Your task to perform on an android device: find snoozed emails in the gmail app Image 0: 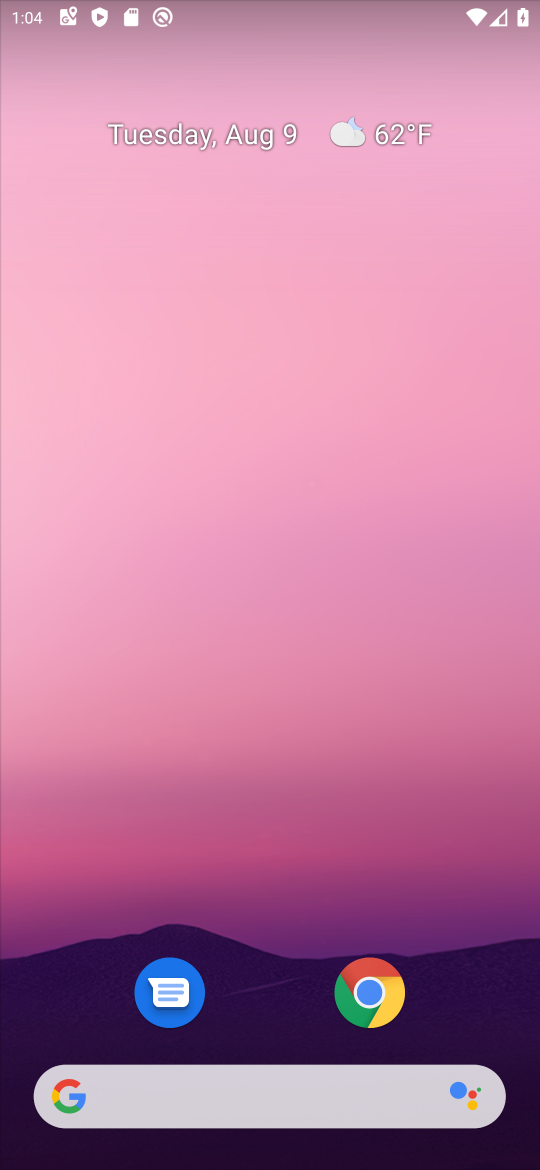
Step 0: drag from (287, 955) to (490, 139)
Your task to perform on an android device: find snoozed emails in the gmail app Image 1: 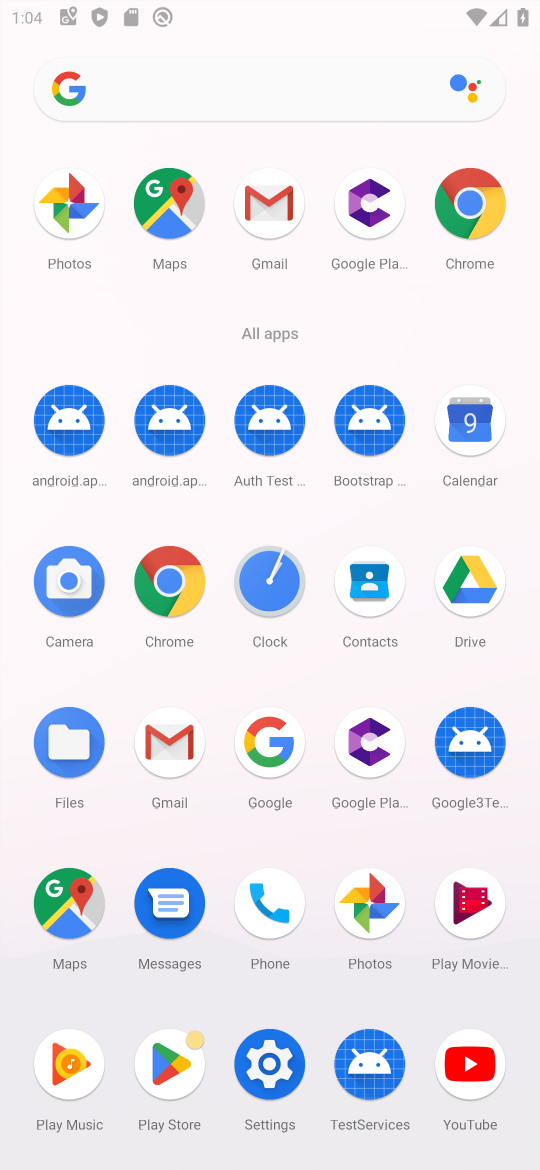
Step 1: drag from (295, 697) to (313, 303)
Your task to perform on an android device: find snoozed emails in the gmail app Image 2: 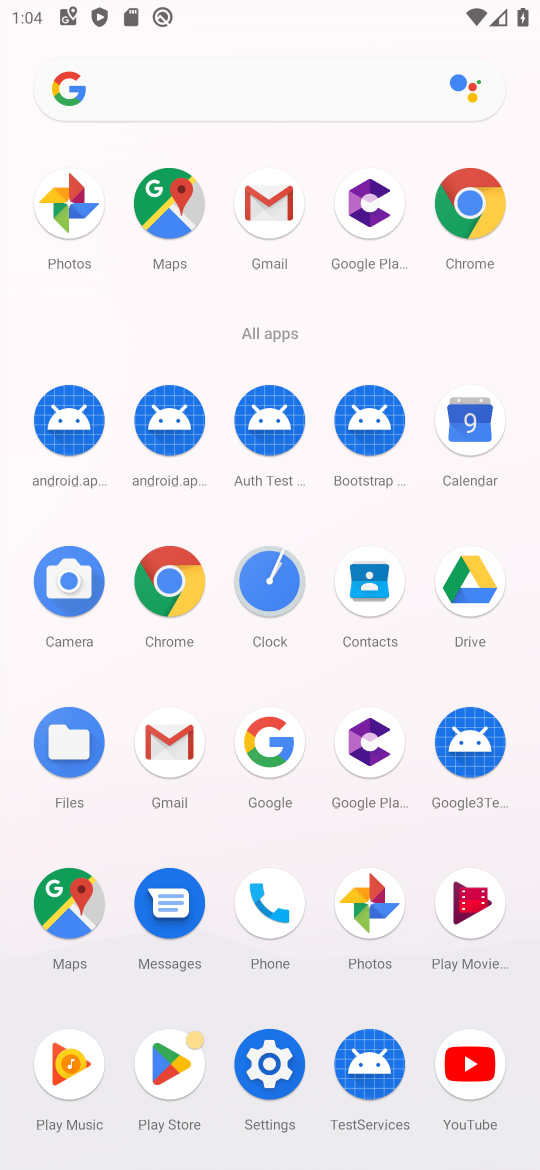
Step 2: click (187, 750)
Your task to perform on an android device: find snoozed emails in the gmail app Image 3: 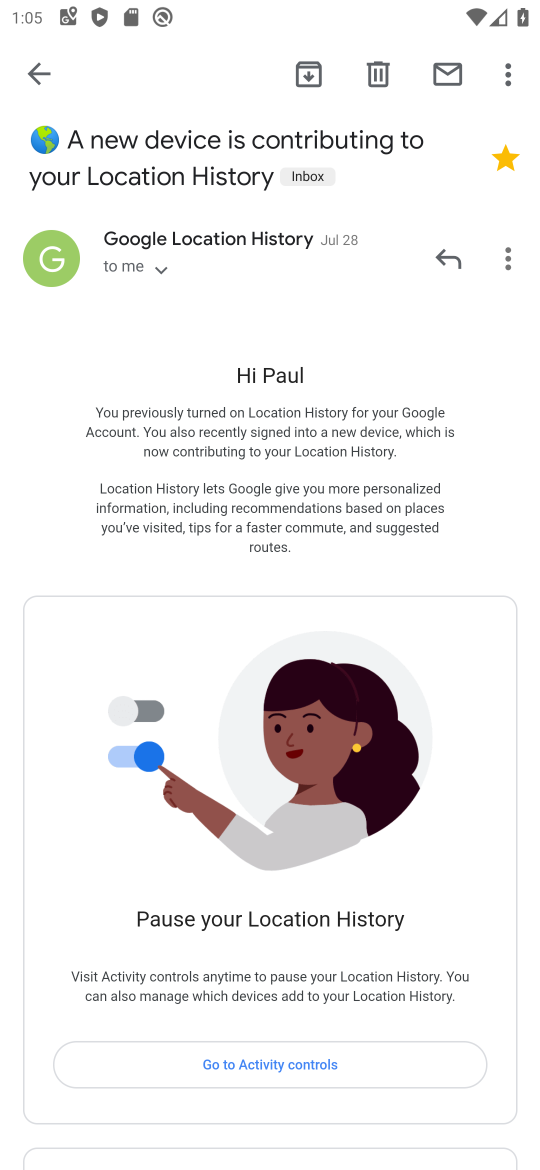
Step 3: click (53, 60)
Your task to perform on an android device: find snoozed emails in the gmail app Image 4: 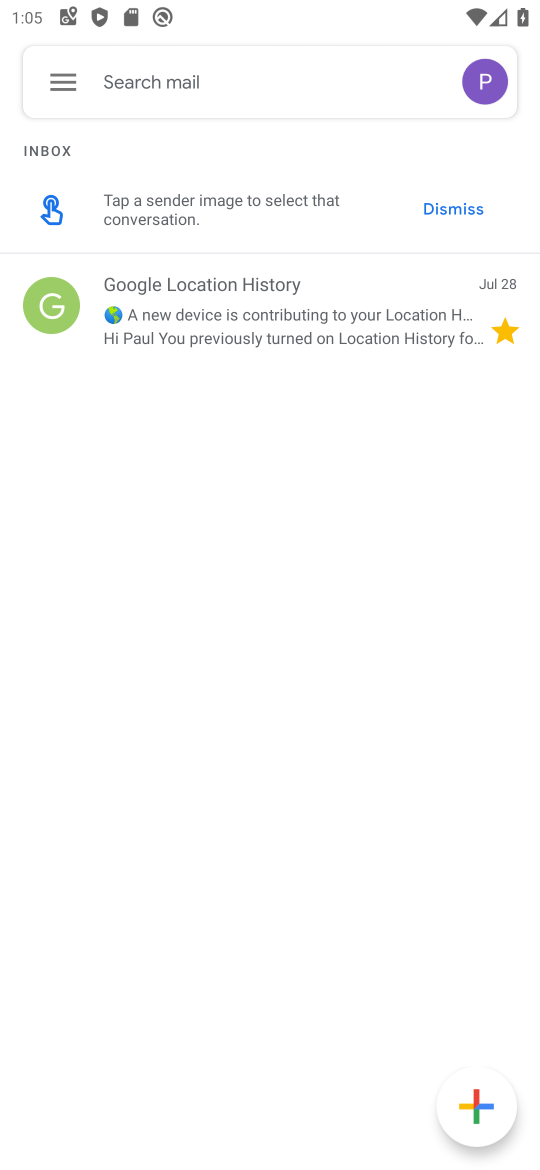
Step 4: click (49, 96)
Your task to perform on an android device: find snoozed emails in the gmail app Image 5: 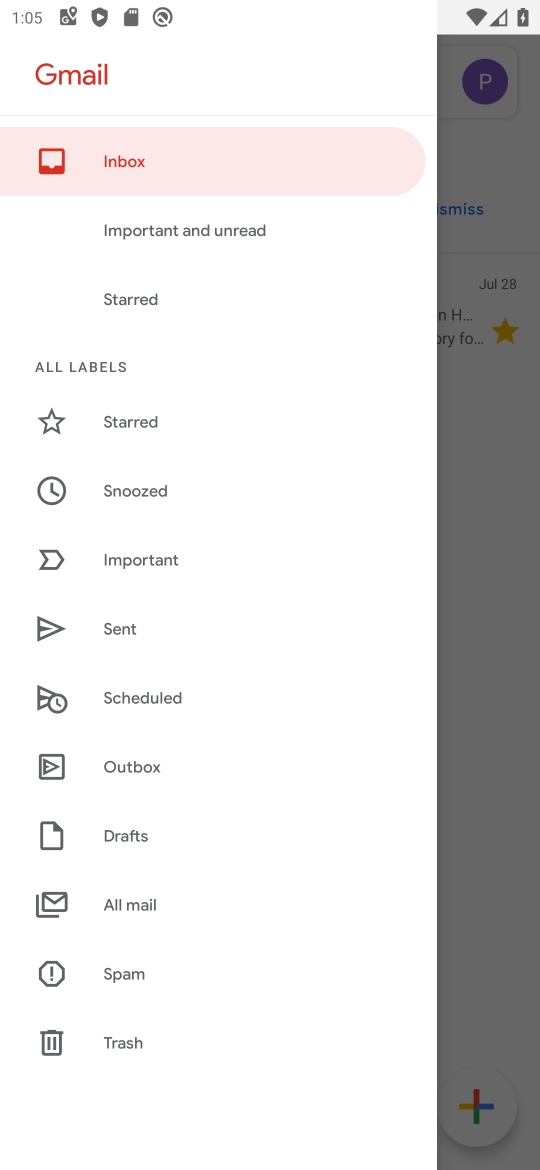
Step 5: click (134, 484)
Your task to perform on an android device: find snoozed emails in the gmail app Image 6: 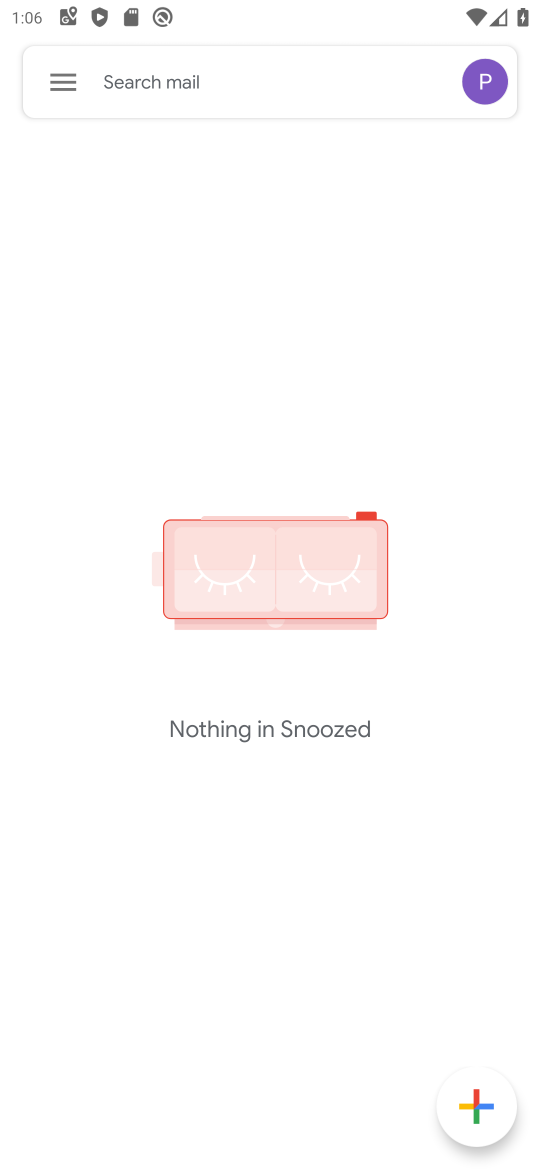
Step 6: task complete